Your task to perform on an android device: Check the news Image 0: 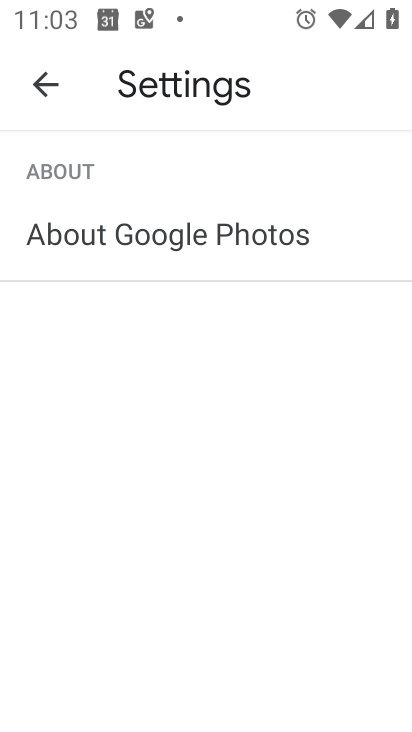
Step 0: press home button
Your task to perform on an android device: Check the news Image 1: 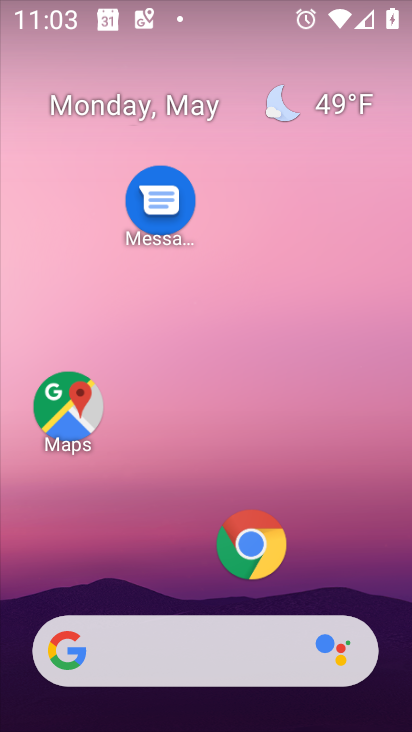
Step 1: drag from (170, 564) to (237, 0)
Your task to perform on an android device: Check the news Image 2: 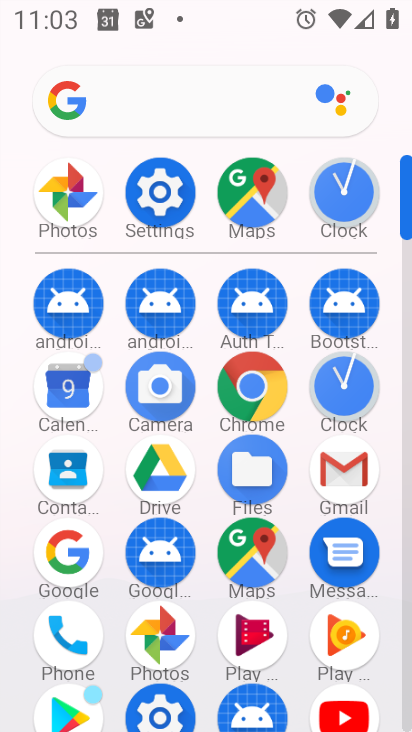
Step 2: click (207, 86)
Your task to perform on an android device: Check the news Image 3: 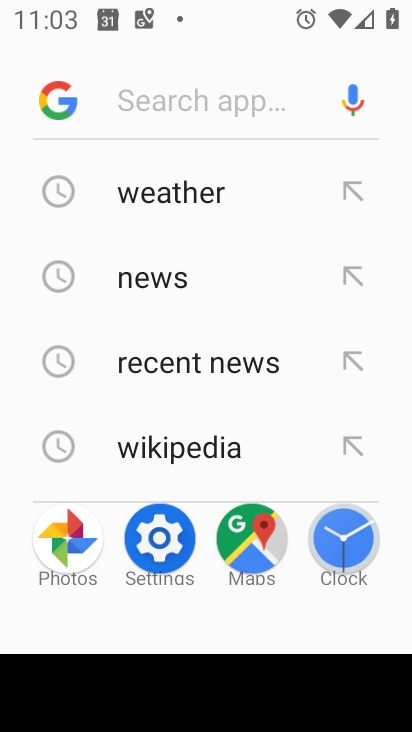
Step 3: type "news"
Your task to perform on an android device: Check the news Image 4: 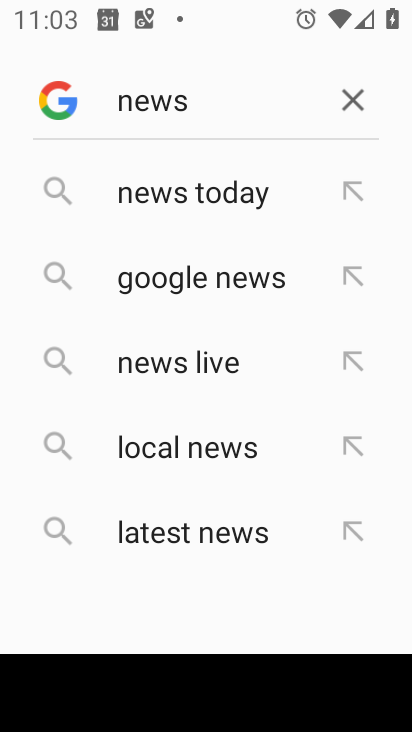
Step 4: click (189, 190)
Your task to perform on an android device: Check the news Image 5: 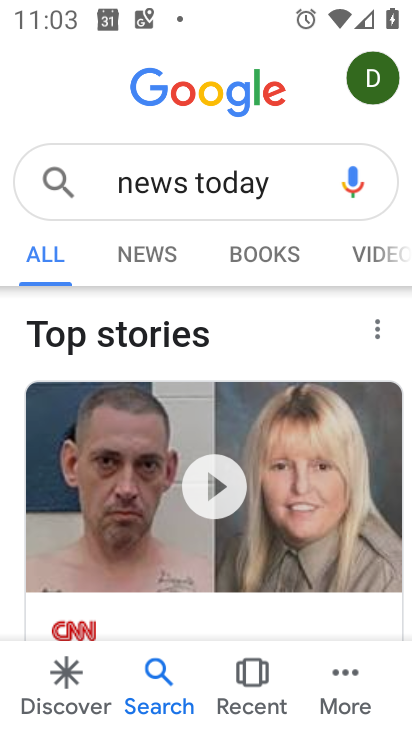
Step 5: click (171, 248)
Your task to perform on an android device: Check the news Image 6: 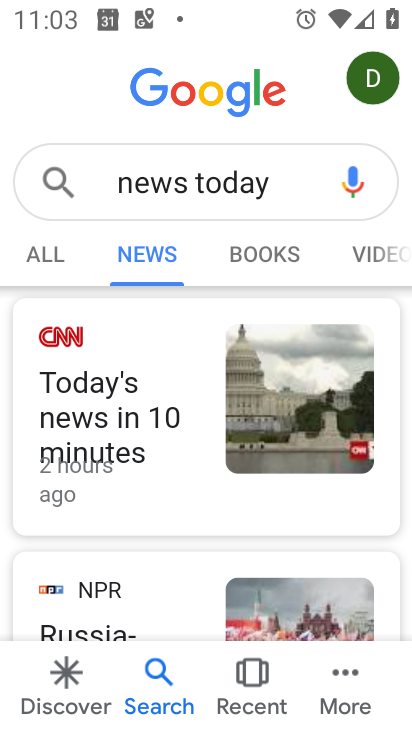
Step 6: task complete